Your task to perform on an android device: Open Android settings Image 0: 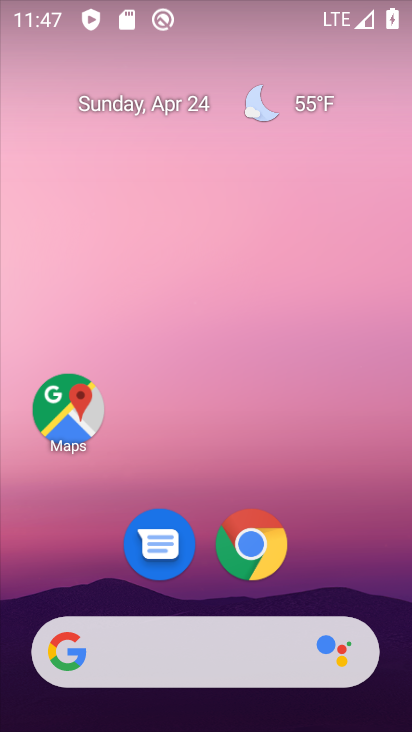
Step 0: drag from (320, 480) to (75, 113)
Your task to perform on an android device: Open Android settings Image 1: 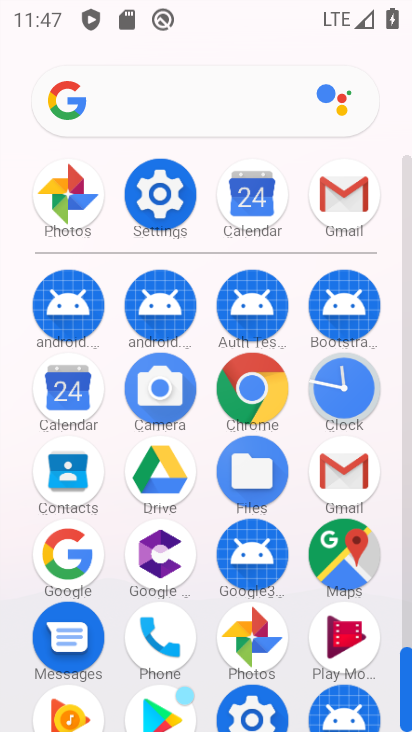
Step 1: click (166, 202)
Your task to perform on an android device: Open Android settings Image 2: 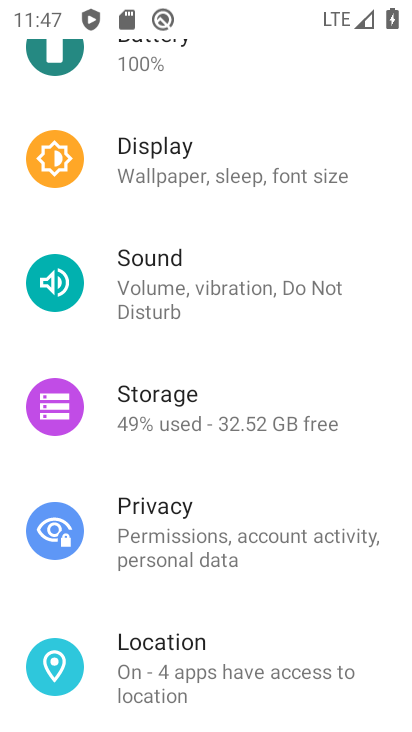
Step 2: drag from (238, 659) to (204, 111)
Your task to perform on an android device: Open Android settings Image 3: 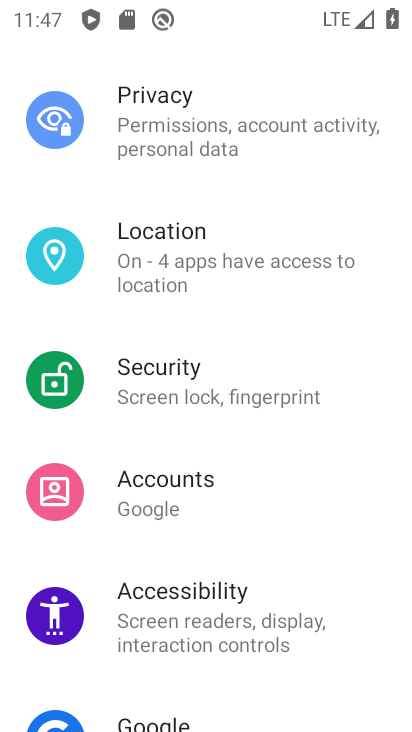
Step 3: drag from (272, 664) to (226, 81)
Your task to perform on an android device: Open Android settings Image 4: 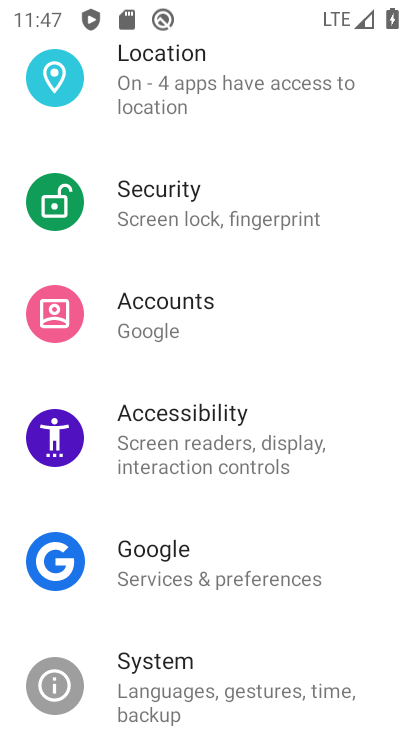
Step 4: drag from (327, 703) to (302, 180)
Your task to perform on an android device: Open Android settings Image 5: 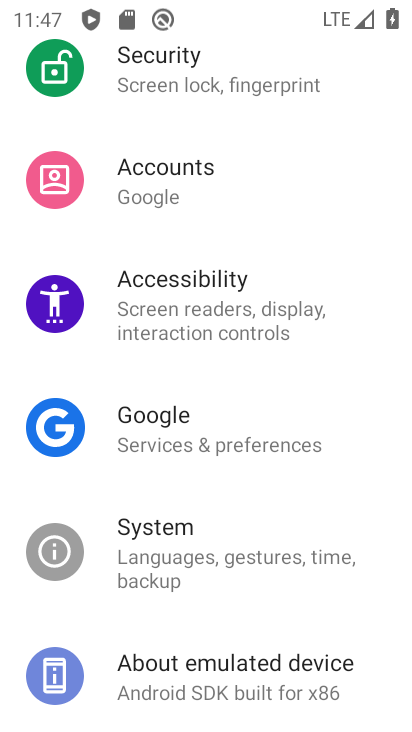
Step 5: click (228, 675)
Your task to perform on an android device: Open Android settings Image 6: 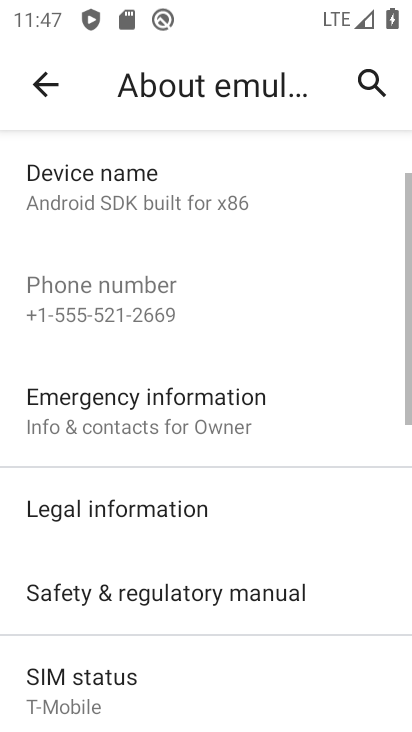
Step 6: drag from (228, 671) to (221, 177)
Your task to perform on an android device: Open Android settings Image 7: 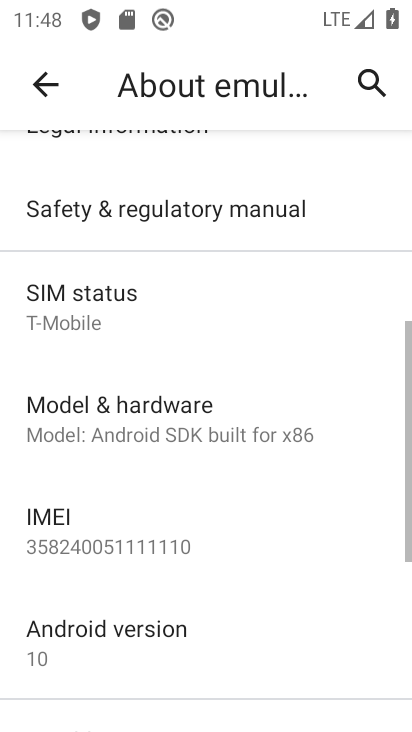
Step 7: drag from (151, 595) to (167, 246)
Your task to perform on an android device: Open Android settings Image 8: 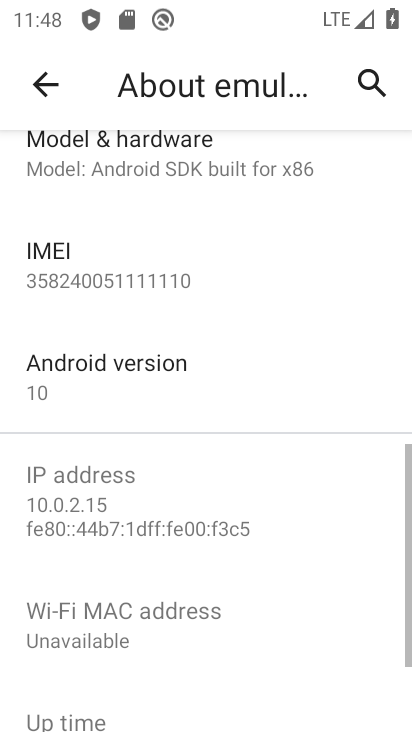
Step 8: click (145, 365)
Your task to perform on an android device: Open Android settings Image 9: 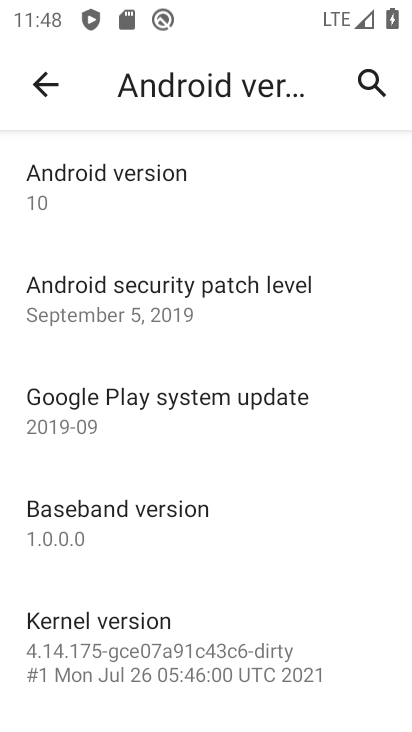
Step 9: task complete